Your task to perform on an android device: Set the phone to "Do not disturb". Image 0: 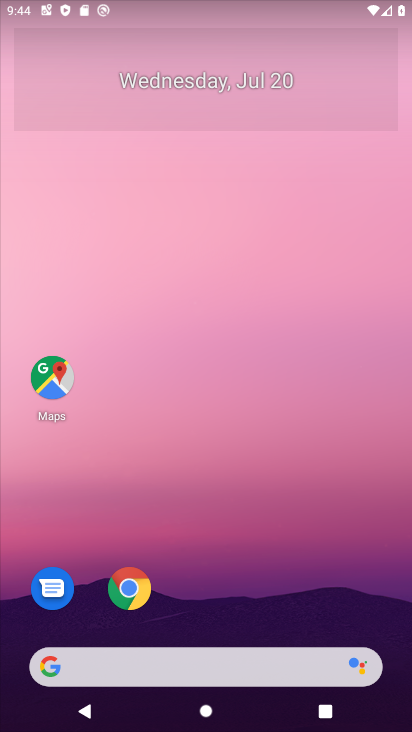
Step 0: press home button
Your task to perform on an android device: Set the phone to "Do not disturb". Image 1: 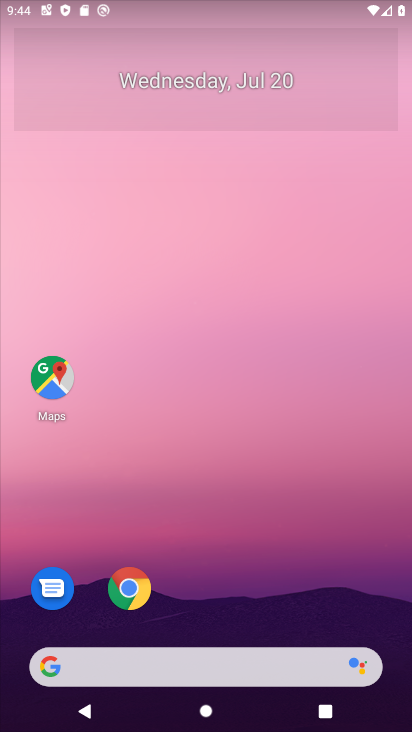
Step 1: drag from (215, 1) to (215, 315)
Your task to perform on an android device: Set the phone to "Do not disturb". Image 2: 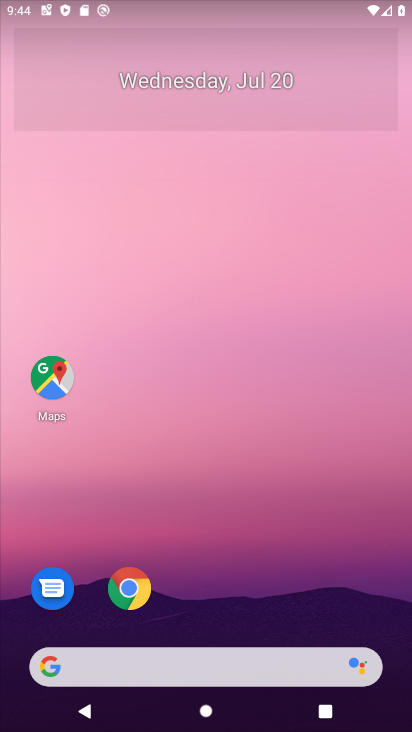
Step 2: click (214, 315)
Your task to perform on an android device: Set the phone to "Do not disturb". Image 3: 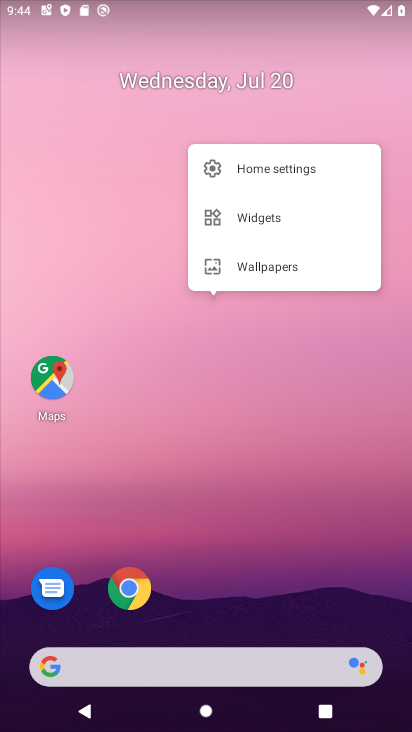
Step 3: drag from (245, 1) to (217, 493)
Your task to perform on an android device: Set the phone to "Do not disturb". Image 4: 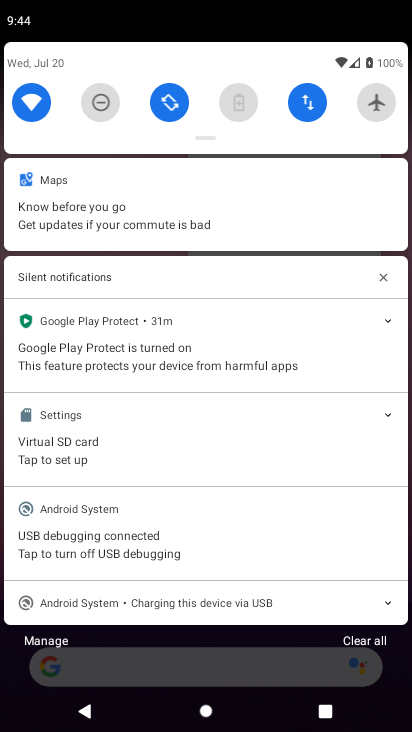
Step 4: click (101, 102)
Your task to perform on an android device: Set the phone to "Do not disturb". Image 5: 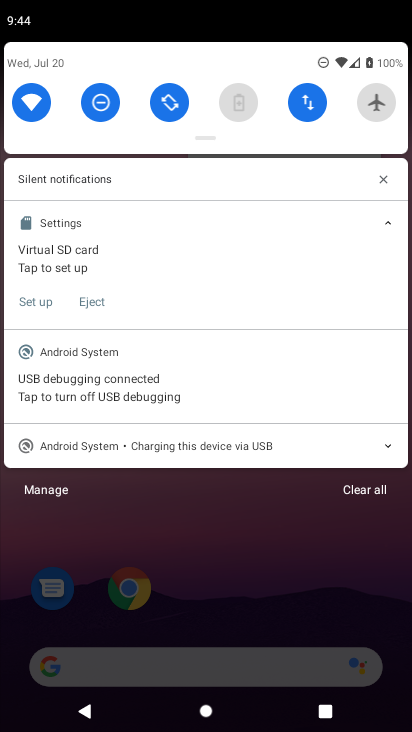
Step 5: task complete